Your task to perform on an android device: change notification settings in the gmail app Image 0: 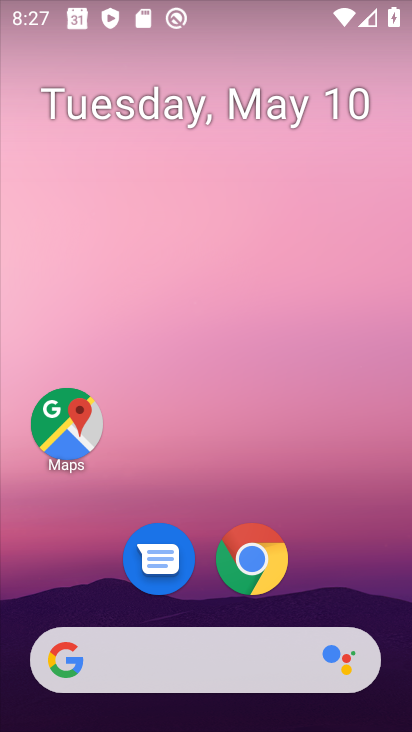
Step 0: drag from (334, 531) to (265, 7)
Your task to perform on an android device: change notification settings in the gmail app Image 1: 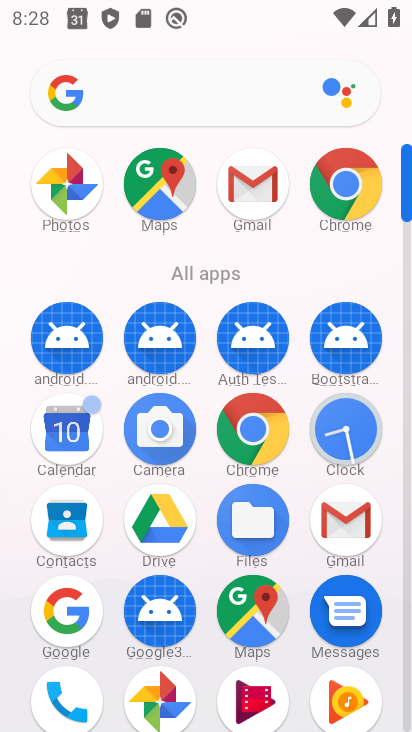
Step 1: drag from (18, 473) to (18, 253)
Your task to perform on an android device: change notification settings in the gmail app Image 2: 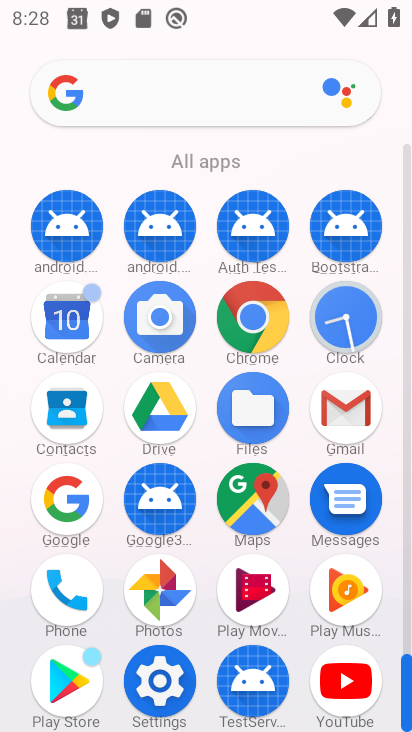
Step 2: click (351, 403)
Your task to perform on an android device: change notification settings in the gmail app Image 3: 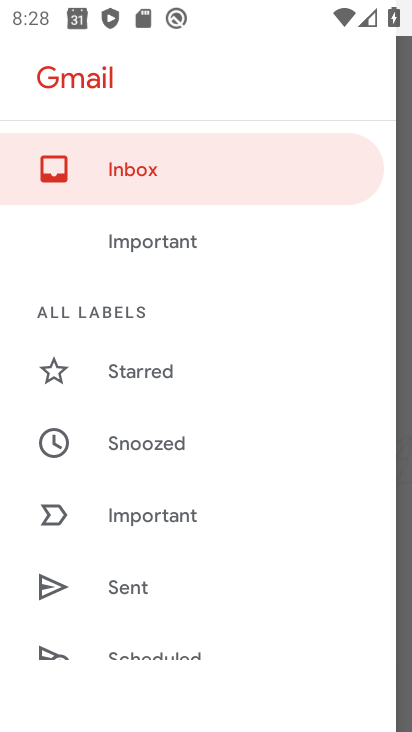
Step 3: drag from (234, 524) to (222, 123)
Your task to perform on an android device: change notification settings in the gmail app Image 4: 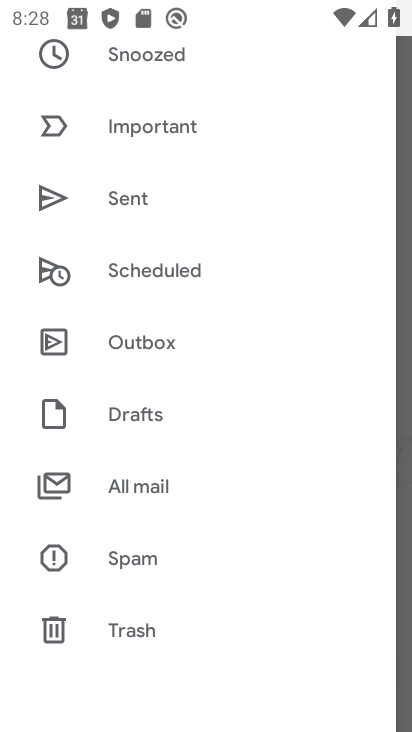
Step 4: drag from (257, 563) to (234, 92)
Your task to perform on an android device: change notification settings in the gmail app Image 5: 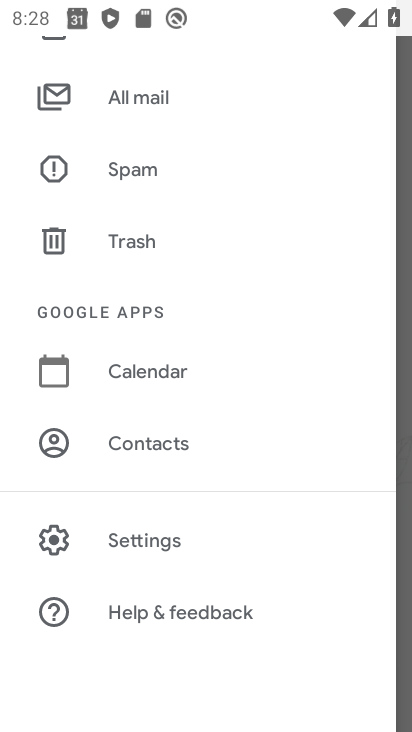
Step 5: click (168, 530)
Your task to perform on an android device: change notification settings in the gmail app Image 6: 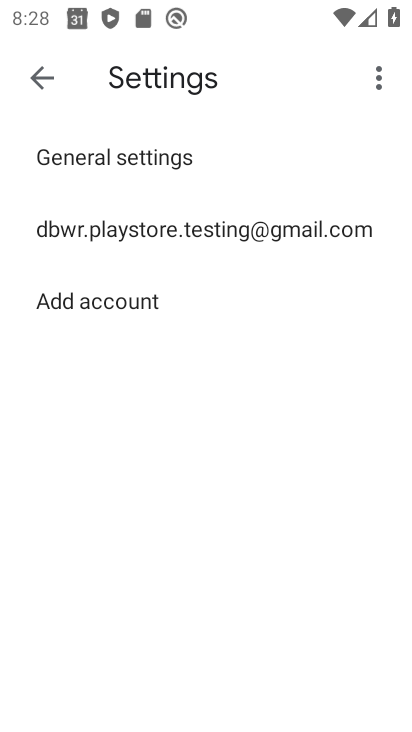
Step 6: click (132, 232)
Your task to perform on an android device: change notification settings in the gmail app Image 7: 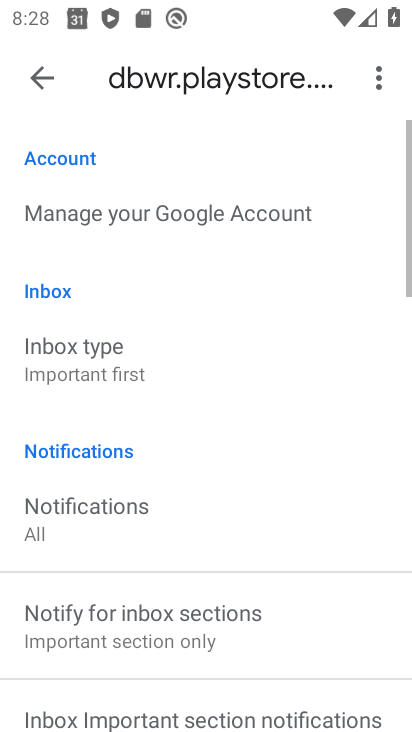
Step 7: drag from (249, 679) to (278, 204)
Your task to perform on an android device: change notification settings in the gmail app Image 8: 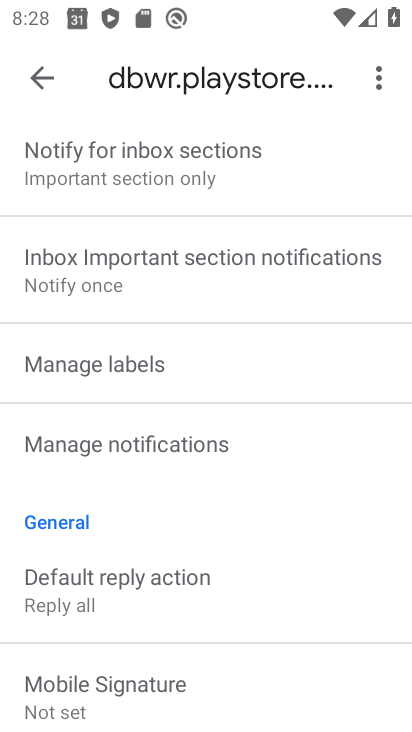
Step 8: click (114, 445)
Your task to perform on an android device: change notification settings in the gmail app Image 9: 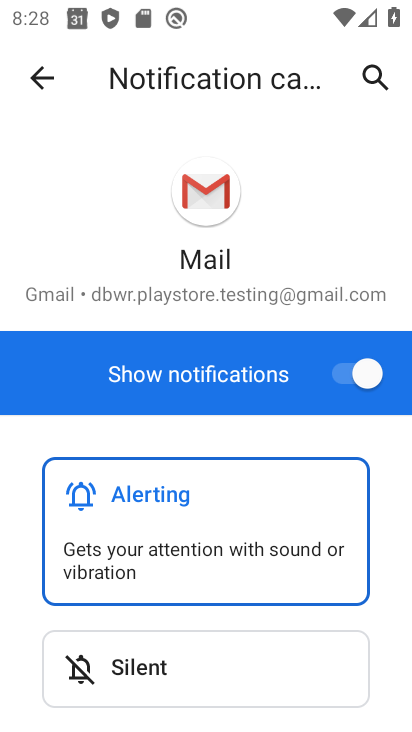
Step 9: click (349, 369)
Your task to perform on an android device: change notification settings in the gmail app Image 10: 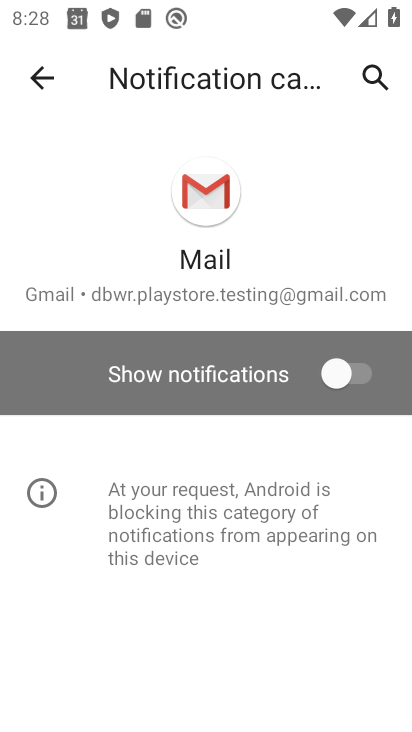
Step 10: task complete